Your task to perform on an android device: How much does a 3 bedroom apartment rent for in Miami? Image 0: 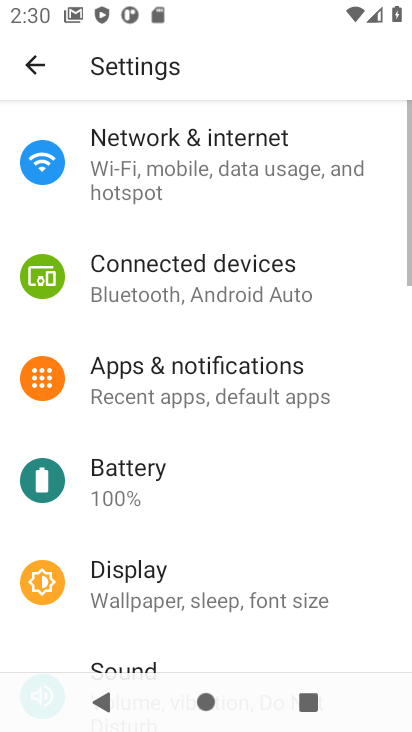
Step 0: press home button
Your task to perform on an android device: How much does a 3 bedroom apartment rent for in Miami? Image 1: 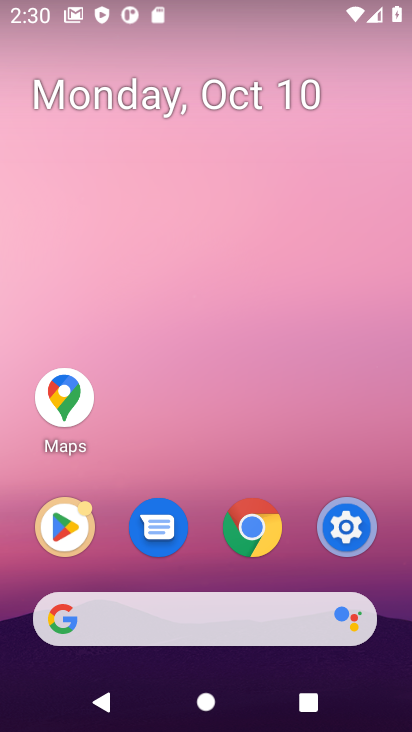
Step 1: click (179, 621)
Your task to perform on an android device: How much does a 3 bedroom apartment rent for in Miami? Image 2: 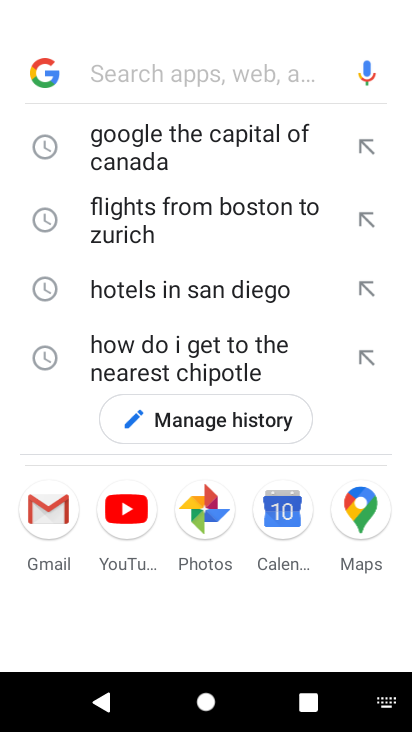
Step 2: type "3 bedroom apartment rent for in Miami"
Your task to perform on an android device: How much does a 3 bedroom apartment rent for in Miami? Image 3: 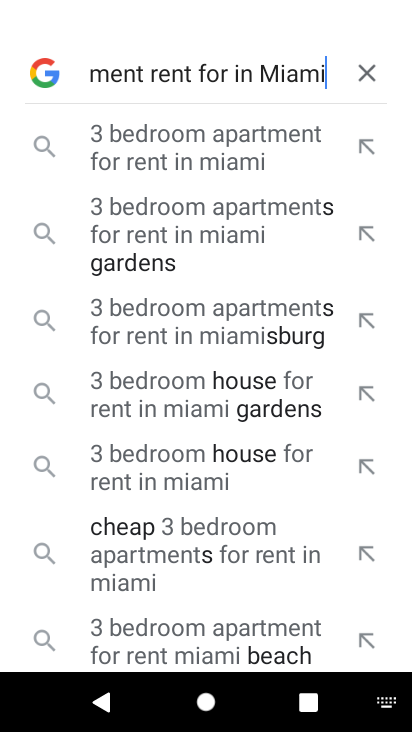
Step 3: press enter
Your task to perform on an android device: How much does a 3 bedroom apartment rent for in Miami? Image 4: 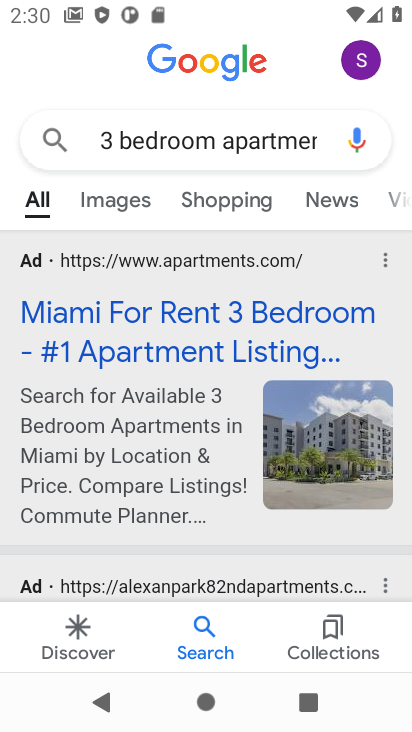
Step 4: click (194, 357)
Your task to perform on an android device: How much does a 3 bedroom apartment rent for in Miami? Image 5: 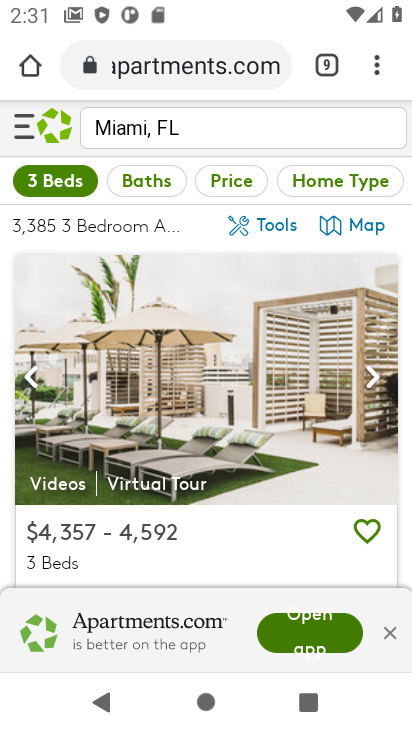
Step 5: click (390, 637)
Your task to perform on an android device: How much does a 3 bedroom apartment rent for in Miami? Image 6: 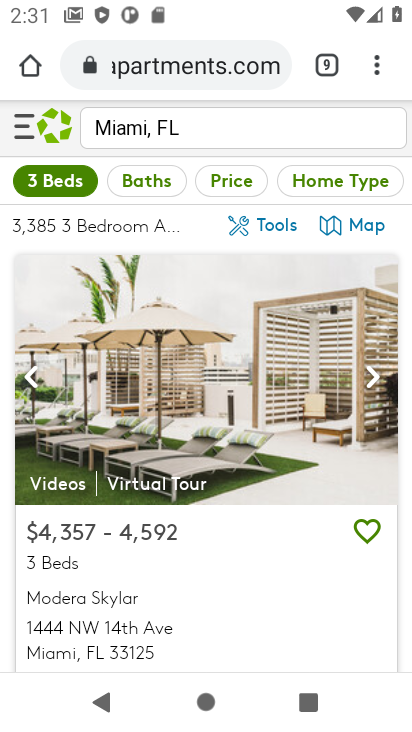
Step 6: task complete